Your task to perform on an android device: Turn off the flashlight Image 0: 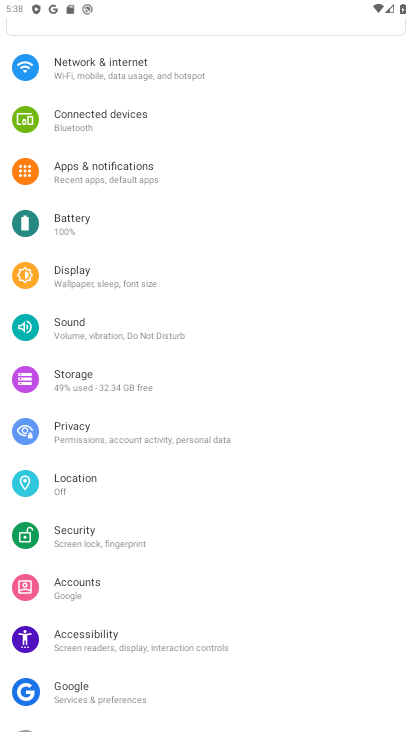
Step 0: press home button
Your task to perform on an android device: Turn off the flashlight Image 1: 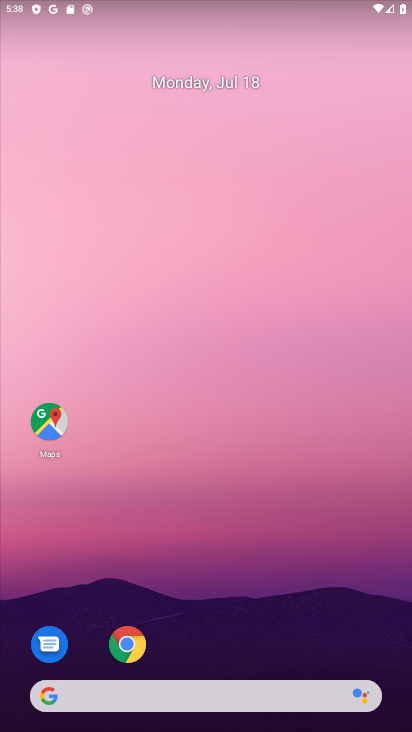
Step 1: task complete